Your task to perform on an android device: turn on sleep mode Image 0: 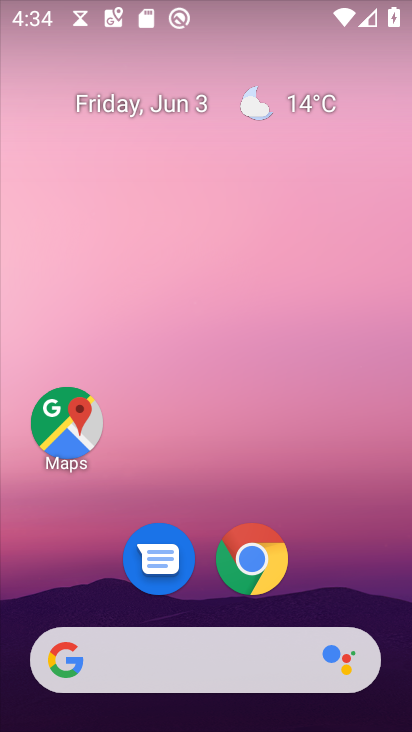
Step 0: drag from (265, 708) to (163, 162)
Your task to perform on an android device: turn on sleep mode Image 1: 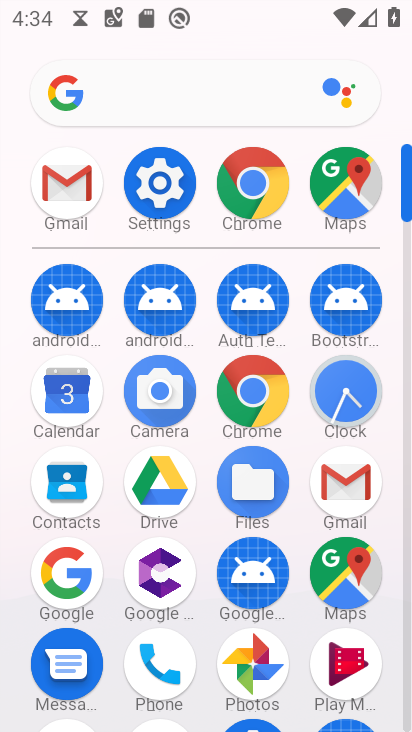
Step 1: click (166, 184)
Your task to perform on an android device: turn on sleep mode Image 2: 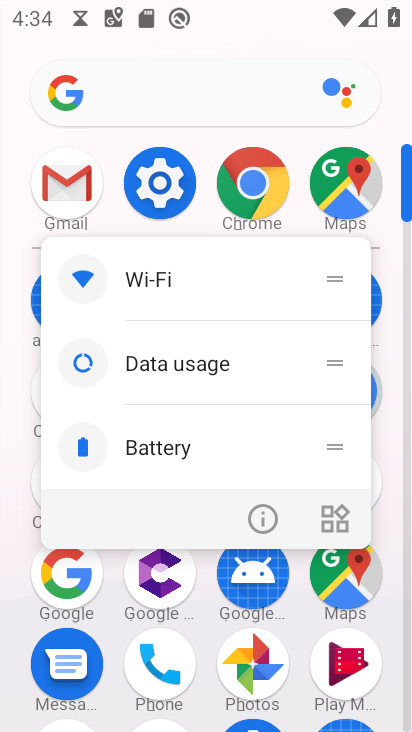
Step 2: click (160, 194)
Your task to perform on an android device: turn on sleep mode Image 3: 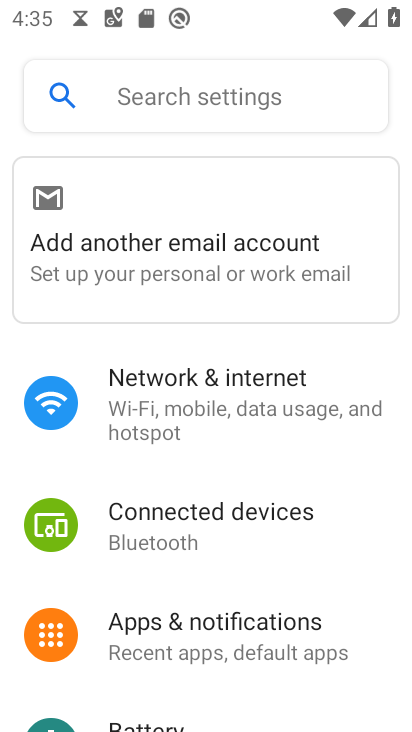
Step 3: drag from (124, 348) to (193, 245)
Your task to perform on an android device: turn on sleep mode Image 4: 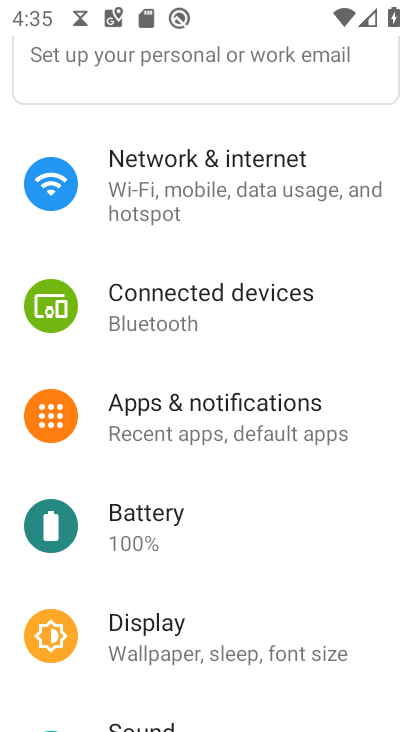
Step 4: drag from (189, 231) to (155, 215)
Your task to perform on an android device: turn on sleep mode Image 5: 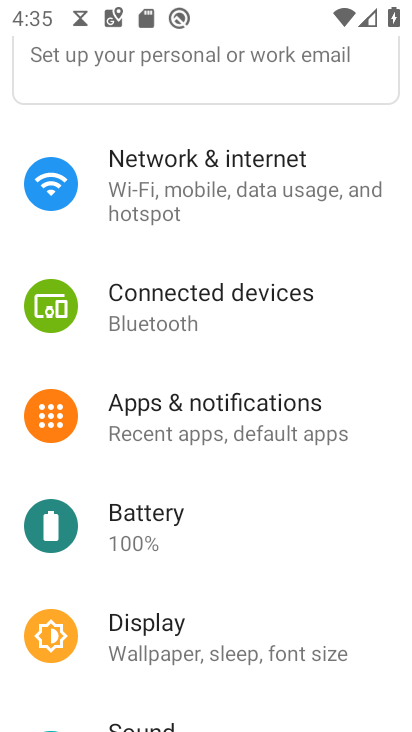
Step 5: drag from (171, 220) to (163, 111)
Your task to perform on an android device: turn on sleep mode Image 6: 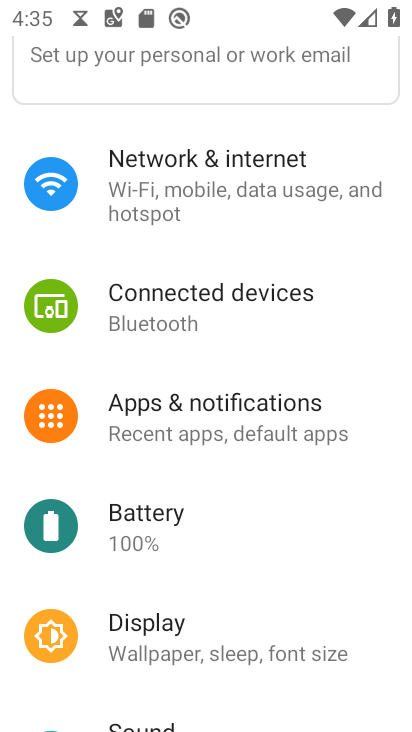
Step 6: drag from (164, 196) to (260, 142)
Your task to perform on an android device: turn on sleep mode Image 7: 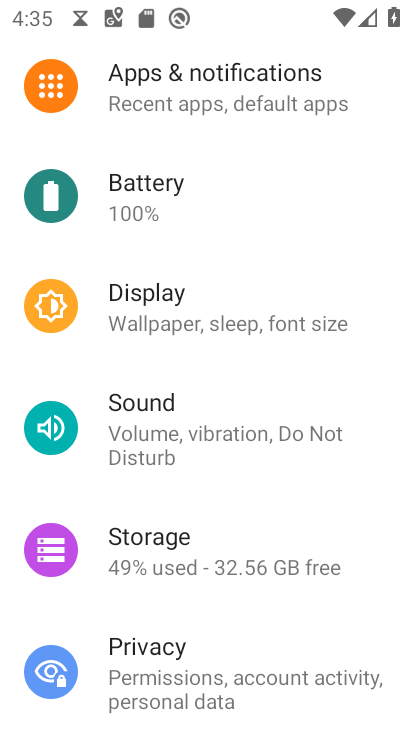
Step 7: drag from (275, 271) to (182, 294)
Your task to perform on an android device: turn on sleep mode Image 8: 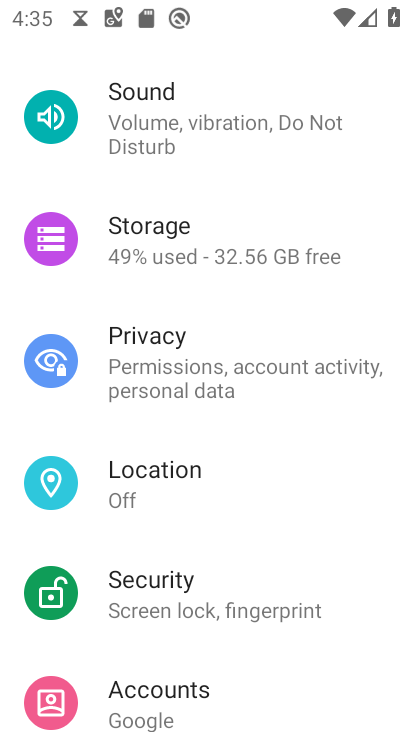
Step 8: drag from (189, 218) to (219, 284)
Your task to perform on an android device: turn on sleep mode Image 9: 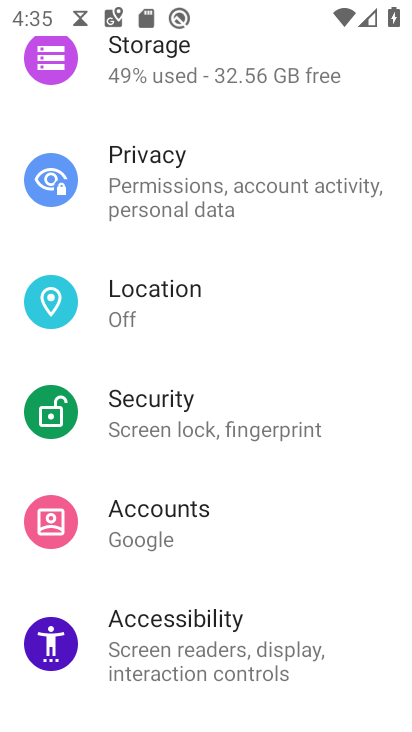
Step 9: drag from (176, 615) to (175, 320)
Your task to perform on an android device: turn on sleep mode Image 10: 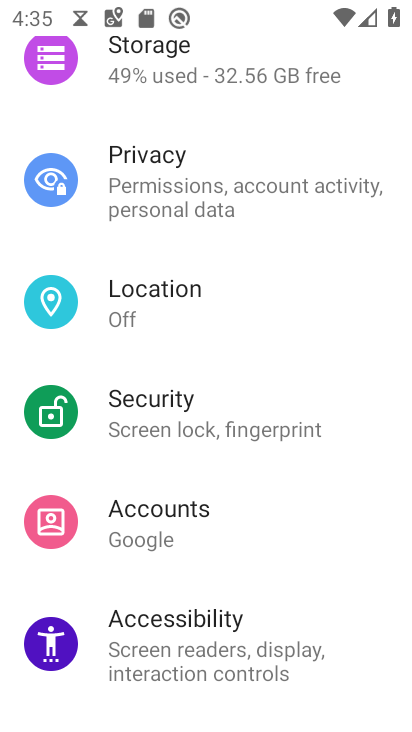
Step 10: drag from (186, 508) to (175, 326)
Your task to perform on an android device: turn on sleep mode Image 11: 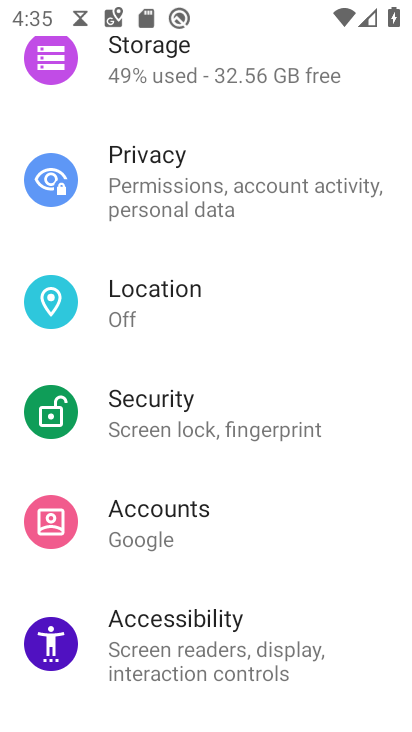
Step 11: drag from (170, 594) to (95, 329)
Your task to perform on an android device: turn on sleep mode Image 12: 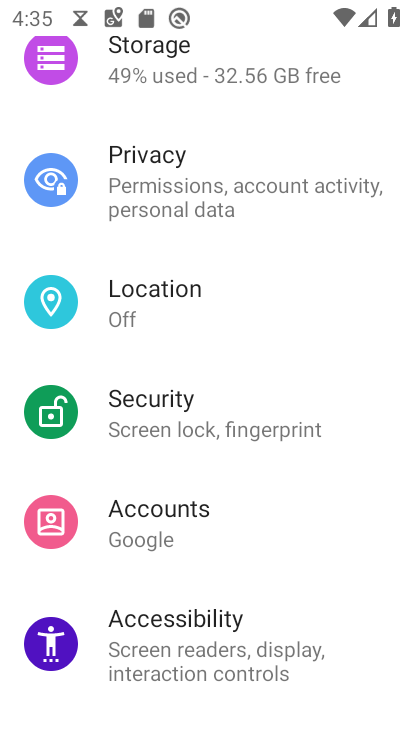
Step 12: drag from (180, 565) to (159, 257)
Your task to perform on an android device: turn on sleep mode Image 13: 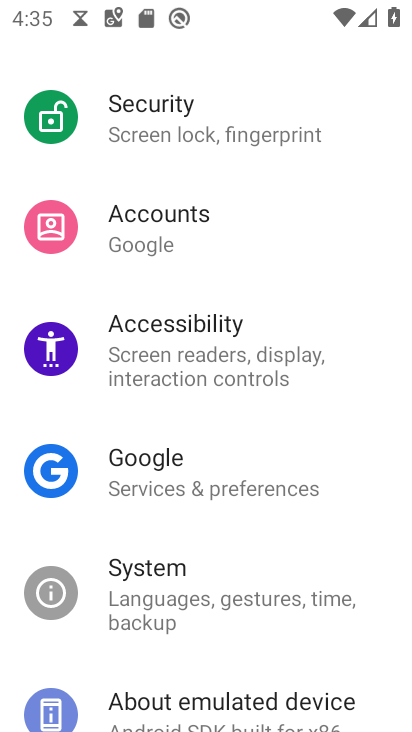
Step 13: drag from (136, 390) to (137, 87)
Your task to perform on an android device: turn on sleep mode Image 14: 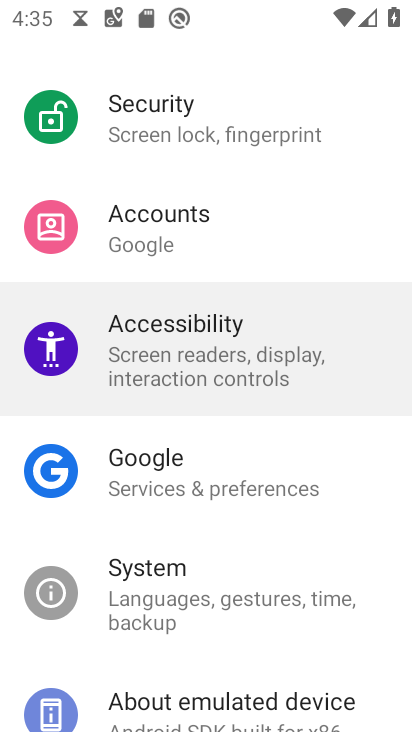
Step 14: drag from (189, 336) to (206, 55)
Your task to perform on an android device: turn on sleep mode Image 15: 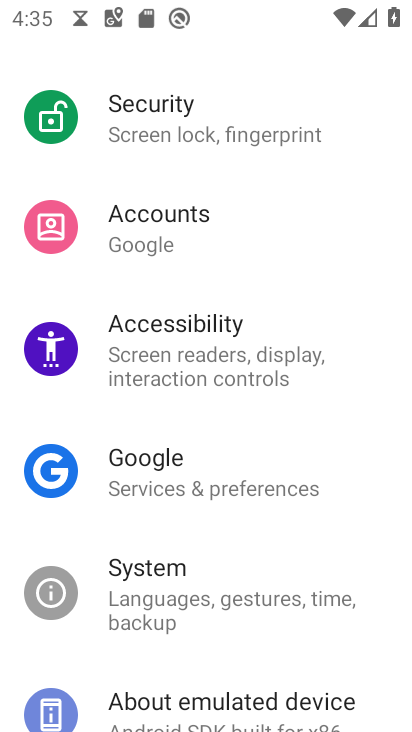
Step 15: drag from (197, 416) to (169, 154)
Your task to perform on an android device: turn on sleep mode Image 16: 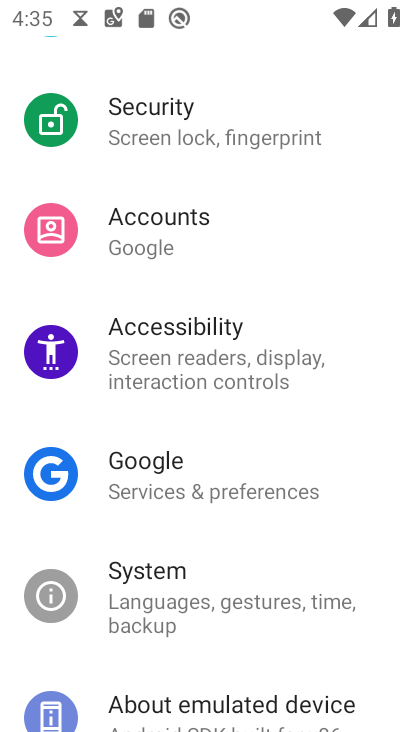
Step 16: drag from (185, 385) to (157, 155)
Your task to perform on an android device: turn on sleep mode Image 17: 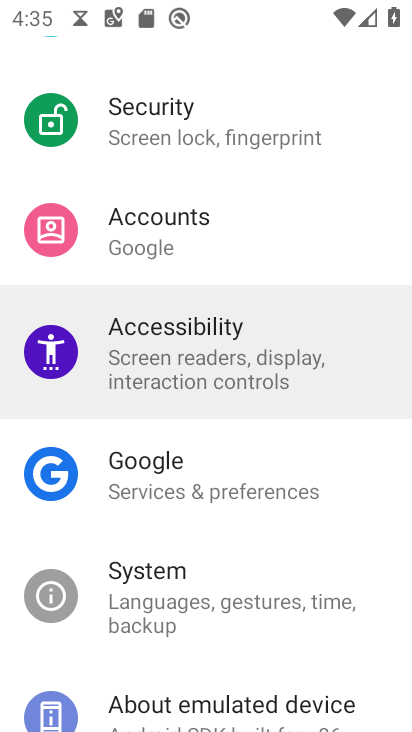
Step 17: drag from (146, 495) to (97, 186)
Your task to perform on an android device: turn on sleep mode Image 18: 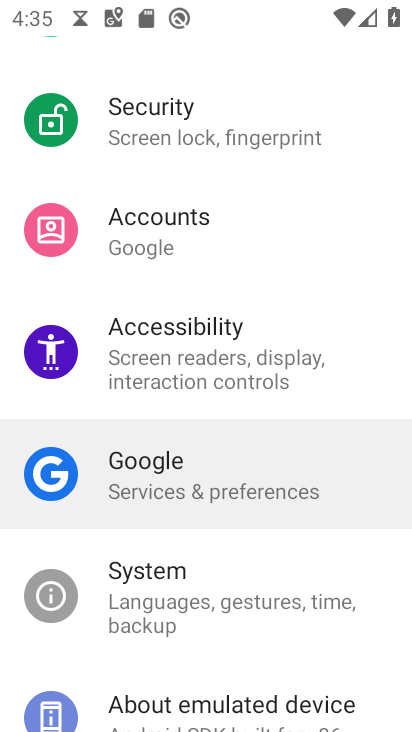
Step 18: drag from (149, 529) to (161, 202)
Your task to perform on an android device: turn on sleep mode Image 19: 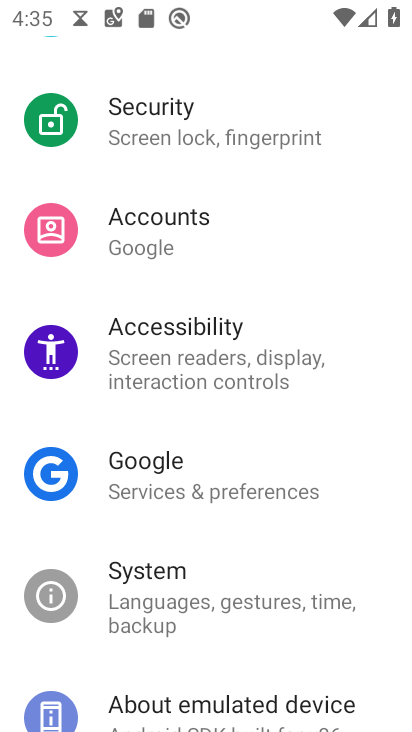
Step 19: drag from (160, 235) to (242, 561)
Your task to perform on an android device: turn on sleep mode Image 20: 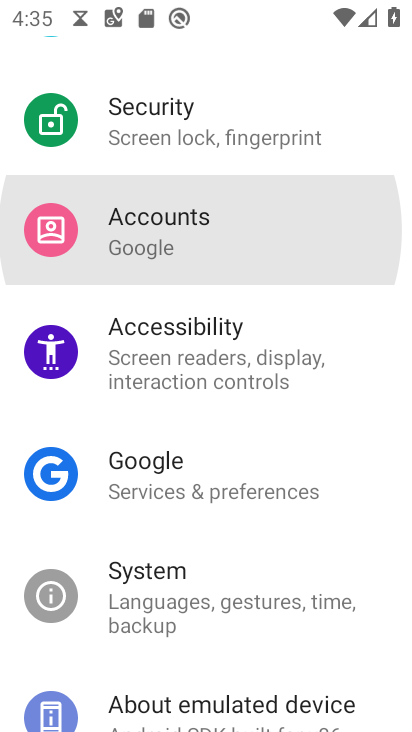
Step 20: drag from (160, 171) to (219, 522)
Your task to perform on an android device: turn on sleep mode Image 21: 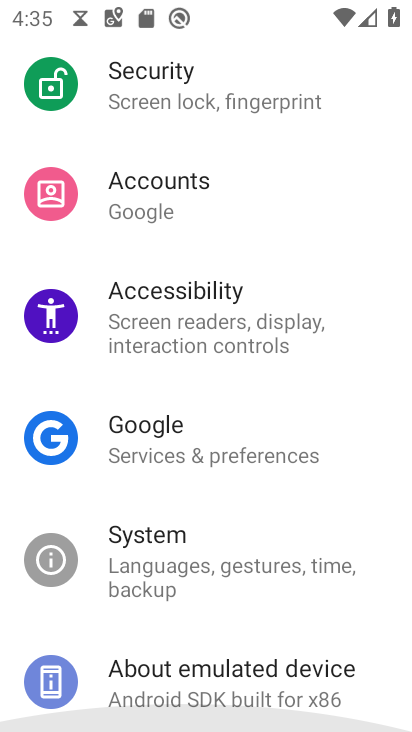
Step 21: drag from (217, 245) to (258, 536)
Your task to perform on an android device: turn on sleep mode Image 22: 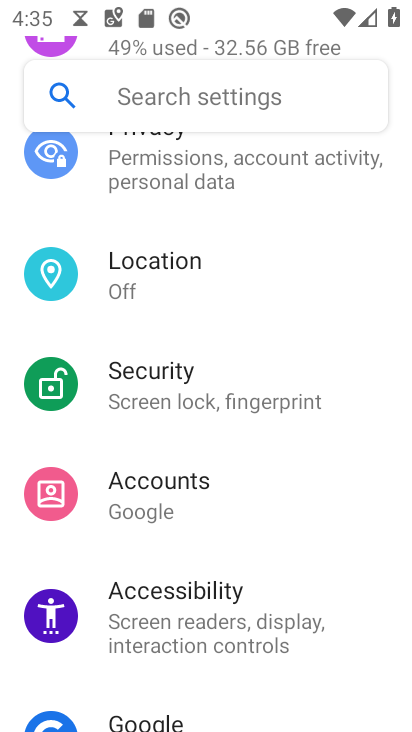
Step 22: drag from (233, 246) to (203, 450)
Your task to perform on an android device: turn on sleep mode Image 23: 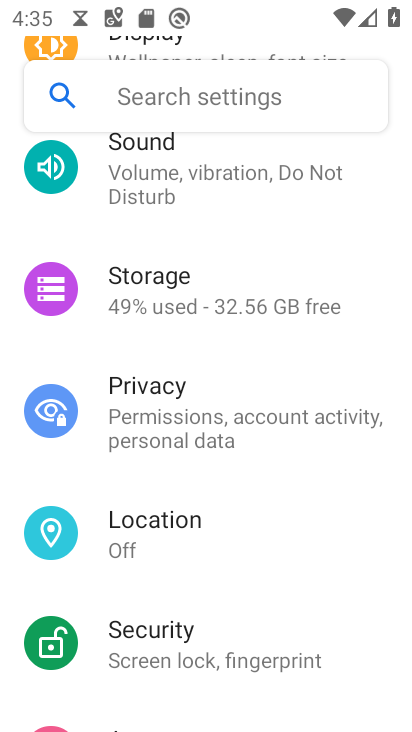
Step 23: drag from (197, 212) to (221, 588)
Your task to perform on an android device: turn on sleep mode Image 24: 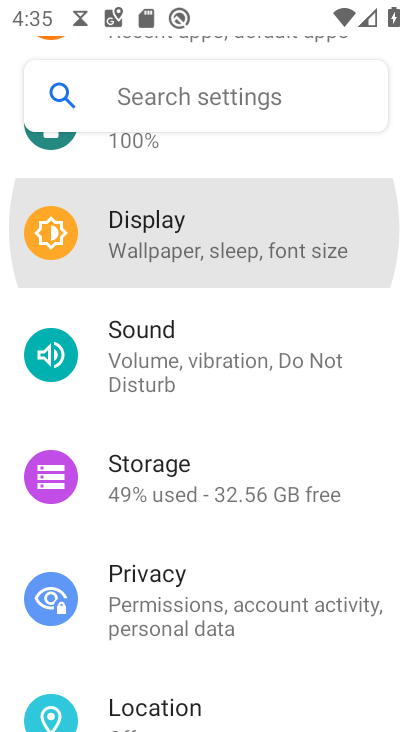
Step 24: drag from (166, 280) to (189, 615)
Your task to perform on an android device: turn on sleep mode Image 25: 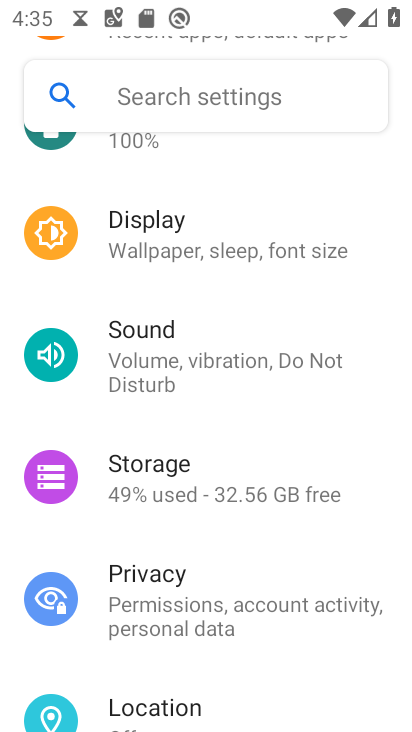
Step 25: drag from (170, 276) to (201, 486)
Your task to perform on an android device: turn on sleep mode Image 26: 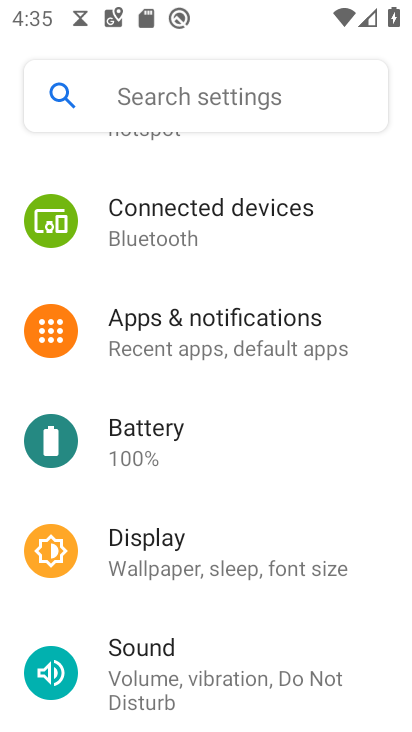
Step 26: drag from (170, 586) to (182, 267)
Your task to perform on an android device: turn on sleep mode Image 27: 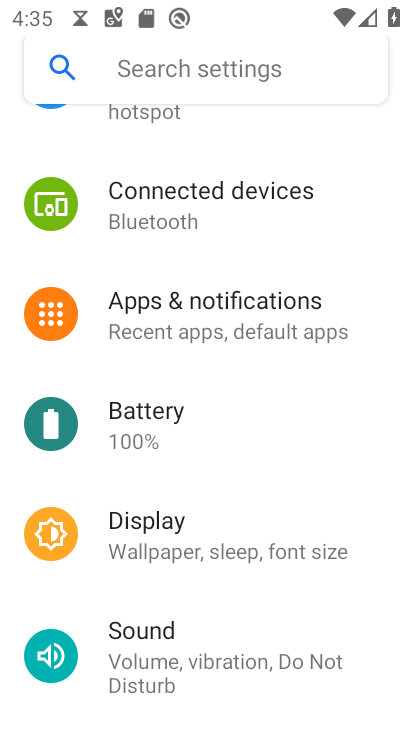
Step 27: drag from (164, 605) to (147, 309)
Your task to perform on an android device: turn on sleep mode Image 28: 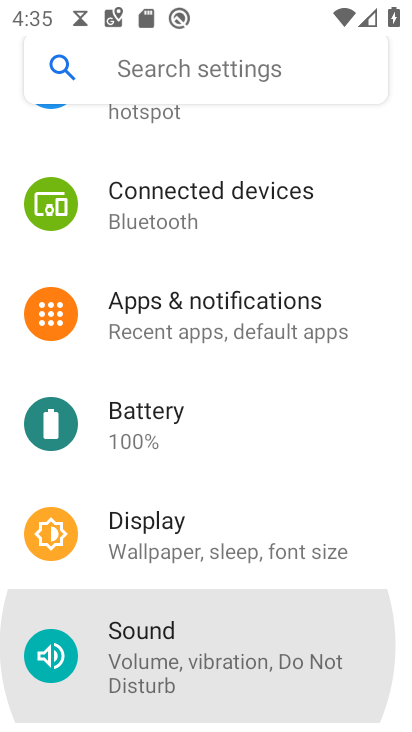
Step 28: drag from (186, 453) to (185, 187)
Your task to perform on an android device: turn on sleep mode Image 29: 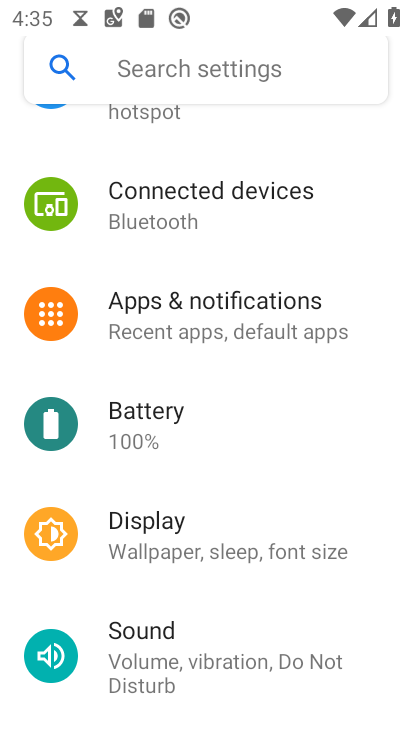
Step 29: click (149, 544)
Your task to perform on an android device: turn on sleep mode Image 30: 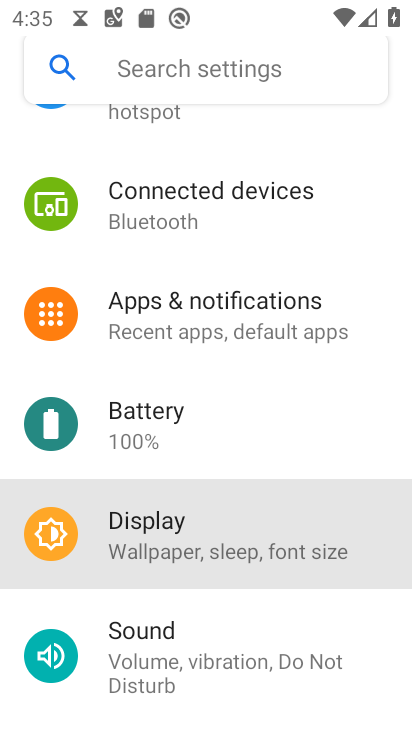
Step 30: click (151, 543)
Your task to perform on an android device: turn on sleep mode Image 31: 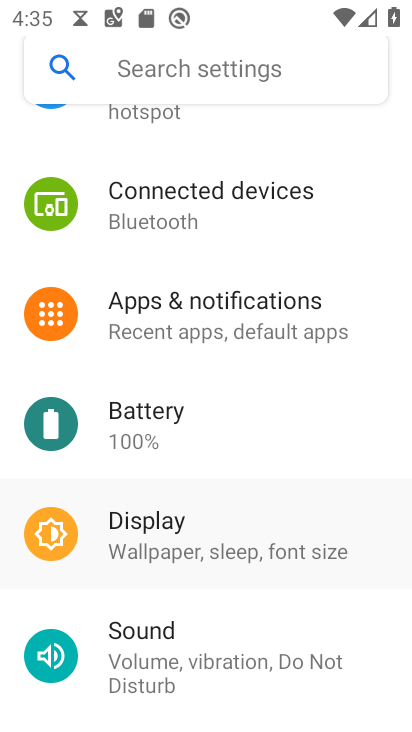
Step 31: click (151, 543)
Your task to perform on an android device: turn on sleep mode Image 32: 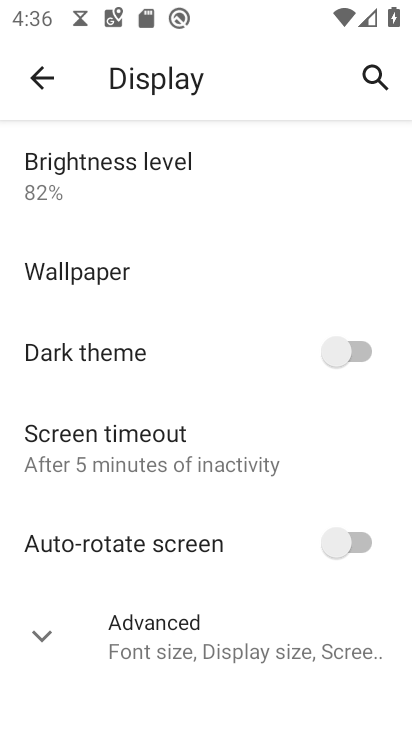
Step 32: task complete